Your task to perform on an android device: find snoozed emails in the gmail app Image 0: 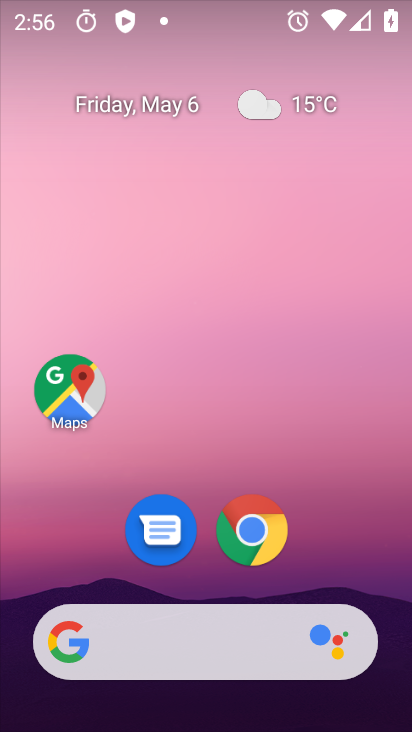
Step 0: drag from (322, 556) to (301, 36)
Your task to perform on an android device: find snoozed emails in the gmail app Image 1: 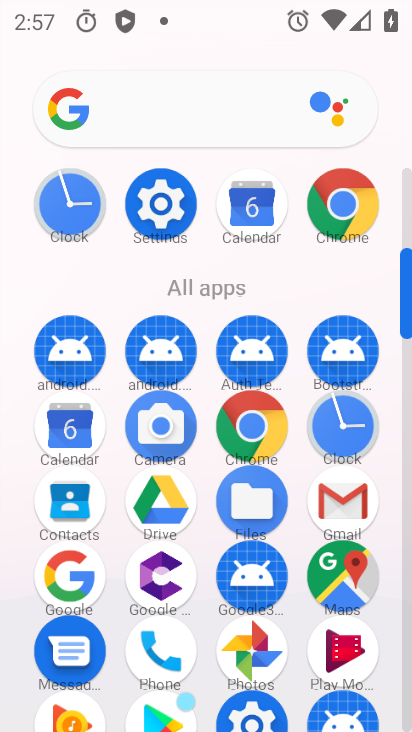
Step 1: click (356, 498)
Your task to perform on an android device: find snoozed emails in the gmail app Image 2: 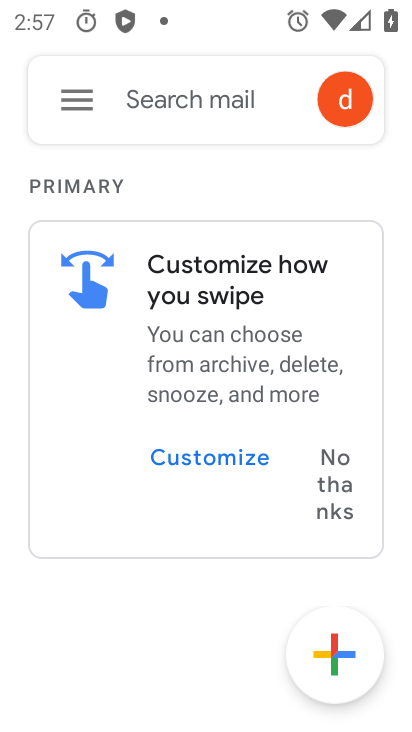
Step 2: click (66, 109)
Your task to perform on an android device: find snoozed emails in the gmail app Image 3: 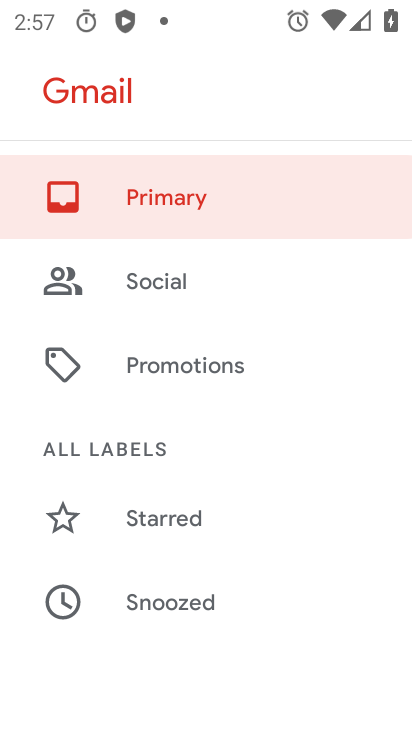
Step 3: click (158, 572)
Your task to perform on an android device: find snoozed emails in the gmail app Image 4: 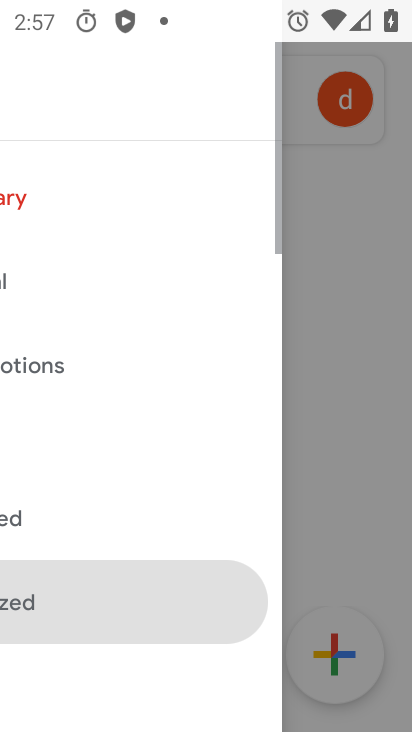
Step 4: click (147, 593)
Your task to perform on an android device: find snoozed emails in the gmail app Image 5: 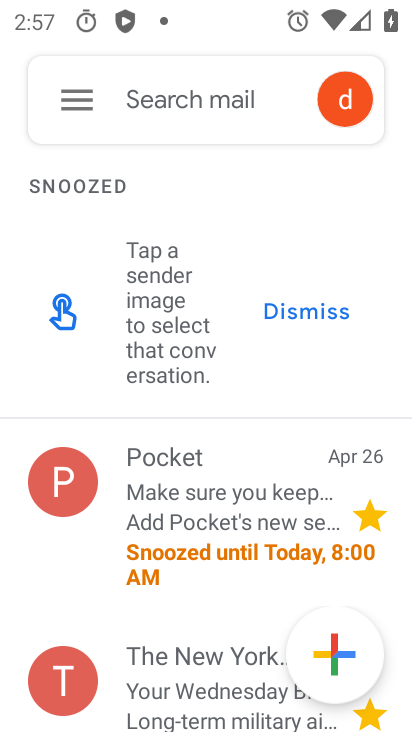
Step 5: drag from (101, 637) to (211, 197)
Your task to perform on an android device: find snoozed emails in the gmail app Image 6: 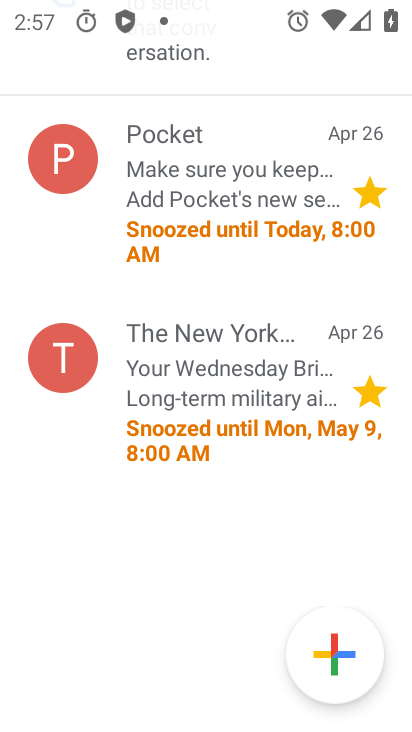
Step 6: click (214, 195)
Your task to perform on an android device: find snoozed emails in the gmail app Image 7: 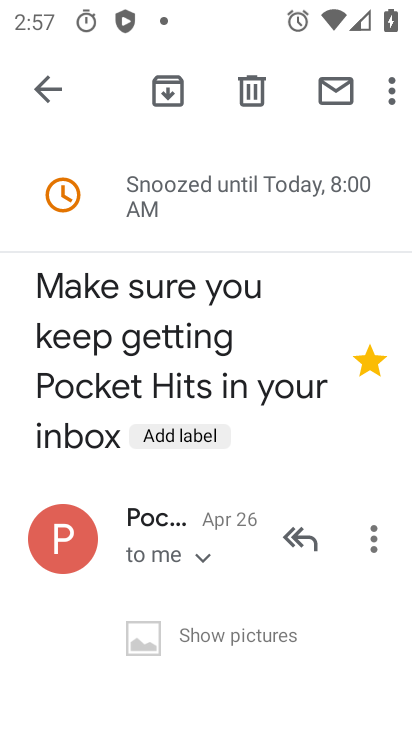
Step 7: task complete